Your task to perform on an android device: turn off smart reply in the gmail app Image 0: 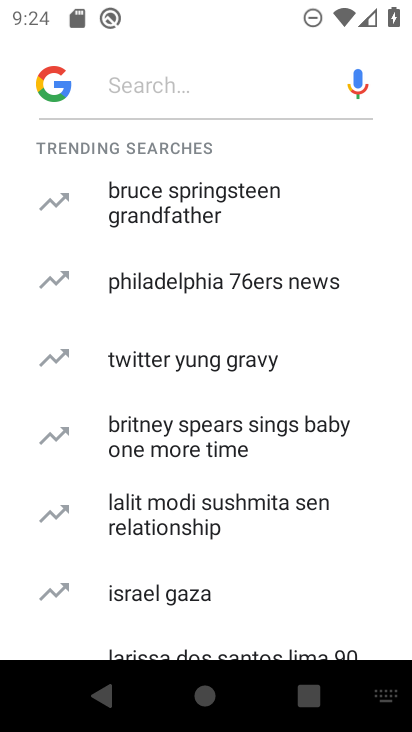
Step 0: press home button
Your task to perform on an android device: turn off smart reply in the gmail app Image 1: 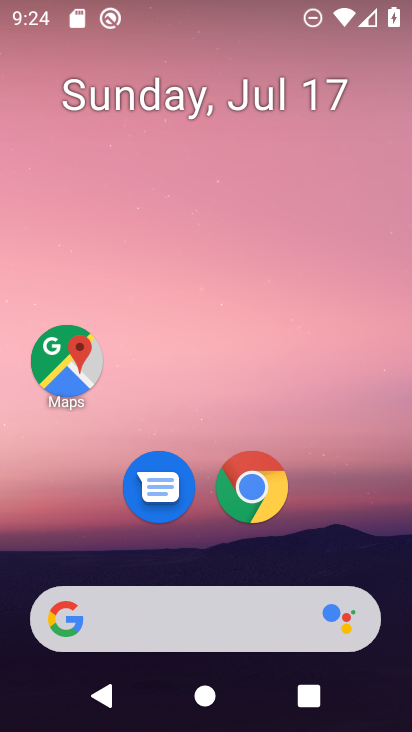
Step 1: drag from (355, 578) to (244, 23)
Your task to perform on an android device: turn off smart reply in the gmail app Image 2: 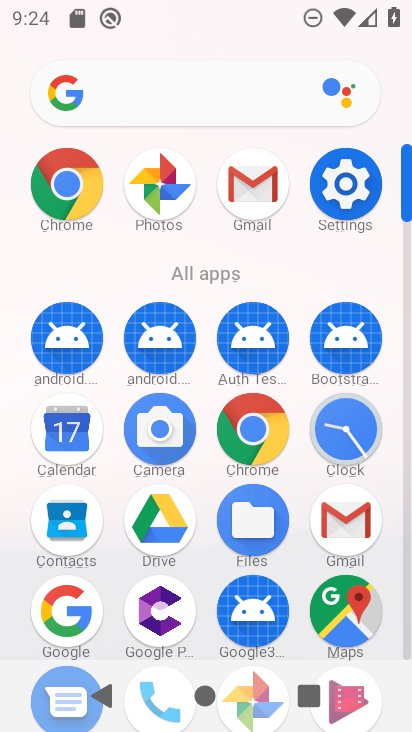
Step 2: click (255, 186)
Your task to perform on an android device: turn off smart reply in the gmail app Image 3: 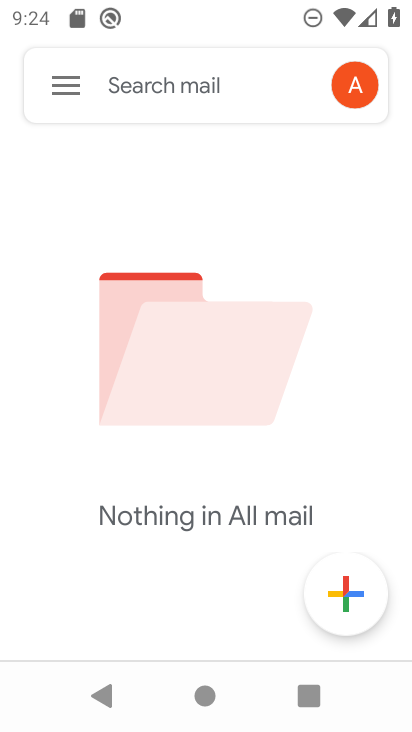
Step 3: click (83, 77)
Your task to perform on an android device: turn off smart reply in the gmail app Image 4: 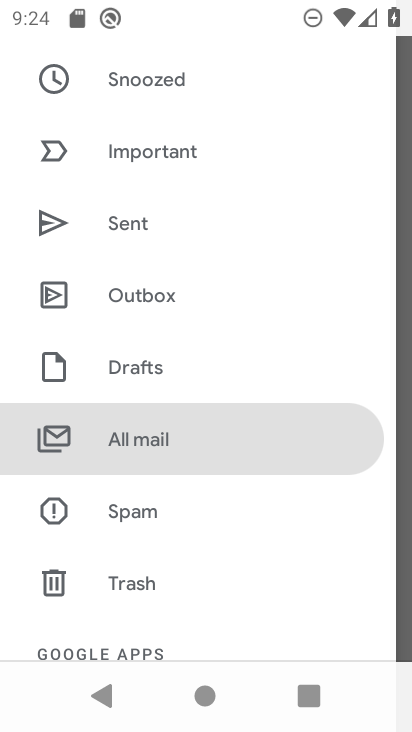
Step 4: drag from (274, 580) to (262, 132)
Your task to perform on an android device: turn off smart reply in the gmail app Image 5: 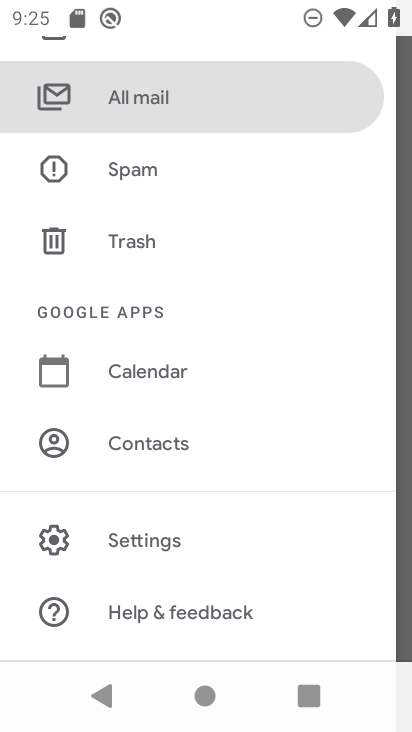
Step 5: click (140, 547)
Your task to perform on an android device: turn off smart reply in the gmail app Image 6: 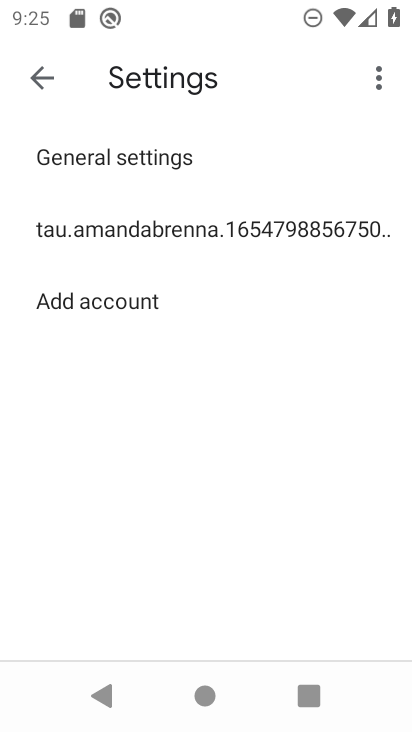
Step 6: click (150, 235)
Your task to perform on an android device: turn off smart reply in the gmail app Image 7: 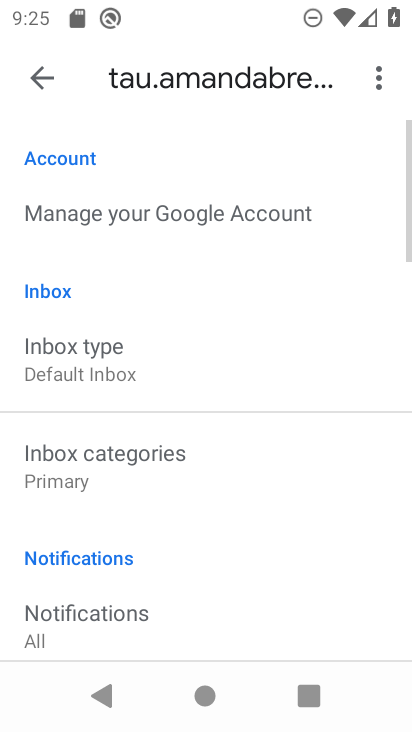
Step 7: drag from (208, 556) to (234, 195)
Your task to perform on an android device: turn off smart reply in the gmail app Image 8: 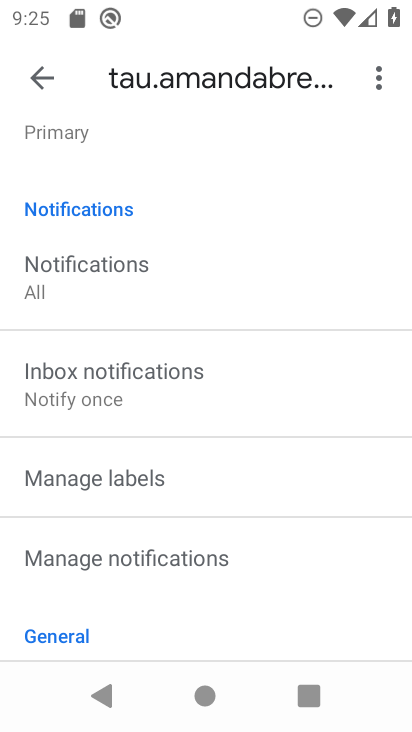
Step 8: drag from (344, 627) to (227, 137)
Your task to perform on an android device: turn off smart reply in the gmail app Image 9: 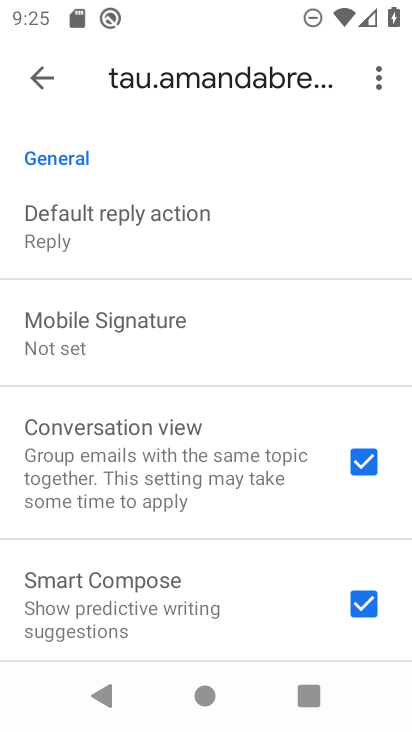
Step 9: drag from (303, 649) to (286, 210)
Your task to perform on an android device: turn off smart reply in the gmail app Image 10: 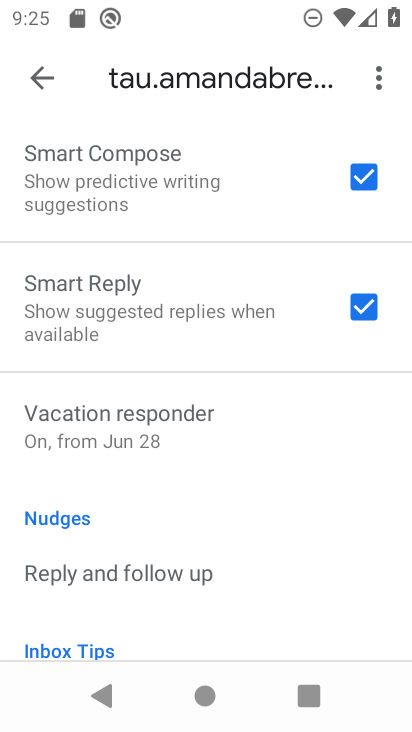
Step 10: click (363, 316)
Your task to perform on an android device: turn off smart reply in the gmail app Image 11: 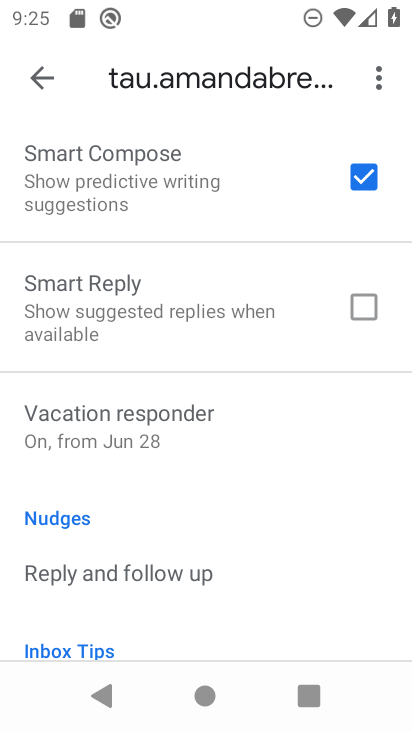
Step 11: task complete